Your task to perform on an android device: Toggle the flashlight Image 0: 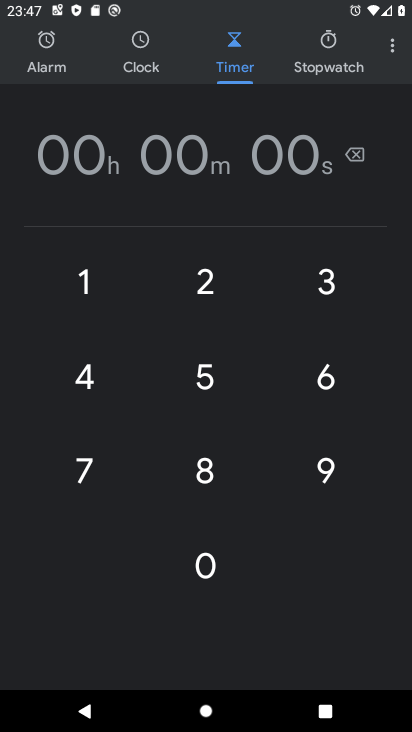
Step 0: press home button
Your task to perform on an android device: Toggle the flashlight Image 1: 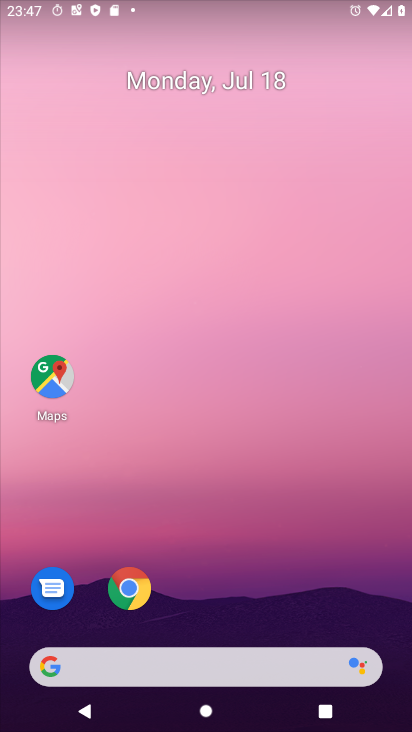
Step 1: task complete